Your task to perform on an android device: change the clock style Image 0: 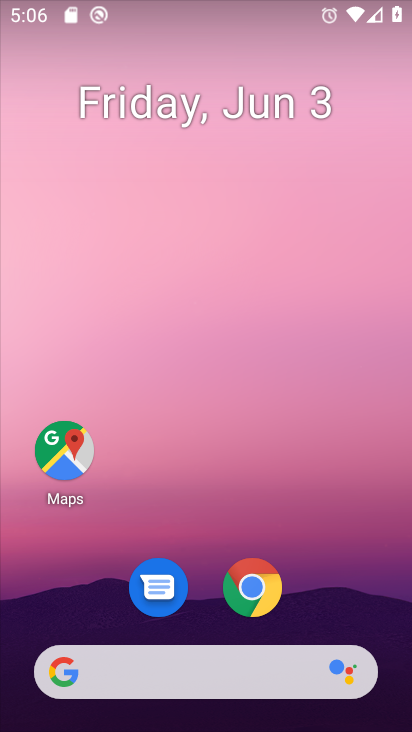
Step 0: drag from (157, 727) to (157, 25)
Your task to perform on an android device: change the clock style Image 1: 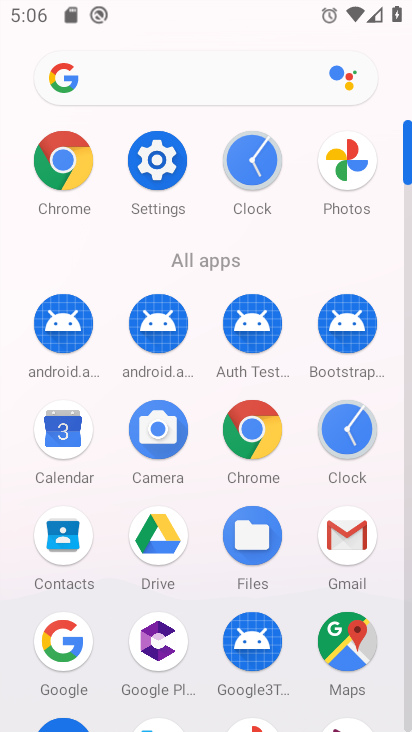
Step 1: click (332, 434)
Your task to perform on an android device: change the clock style Image 2: 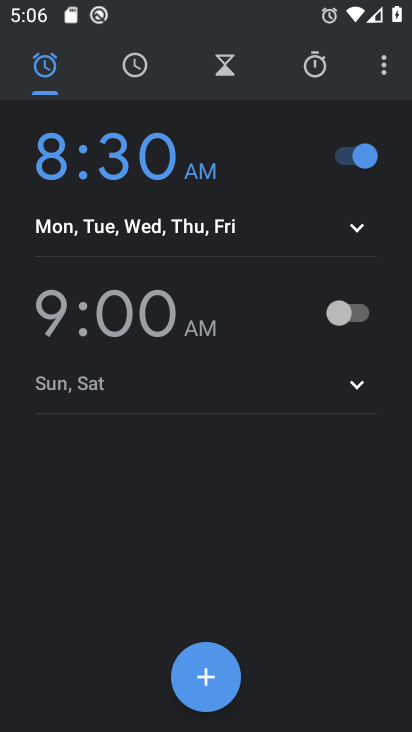
Step 2: click (383, 72)
Your task to perform on an android device: change the clock style Image 3: 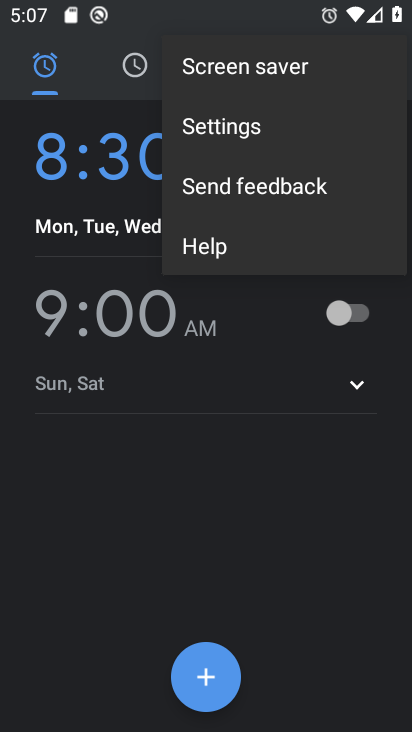
Step 3: click (249, 137)
Your task to perform on an android device: change the clock style Image 4: 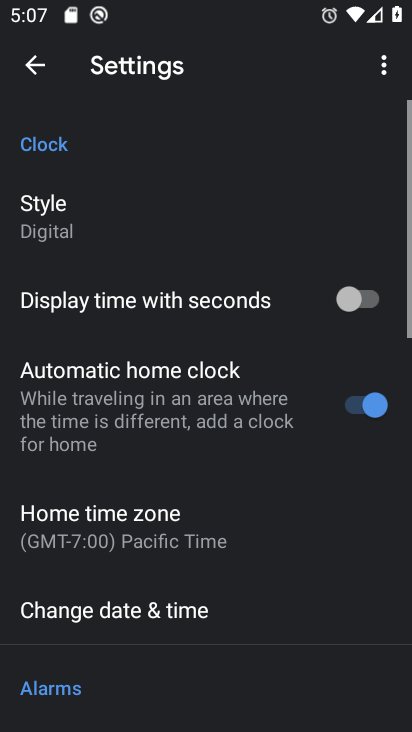
Step 4: click (71, 204)
Your task to perform on an android device: change the clock style Image 5: 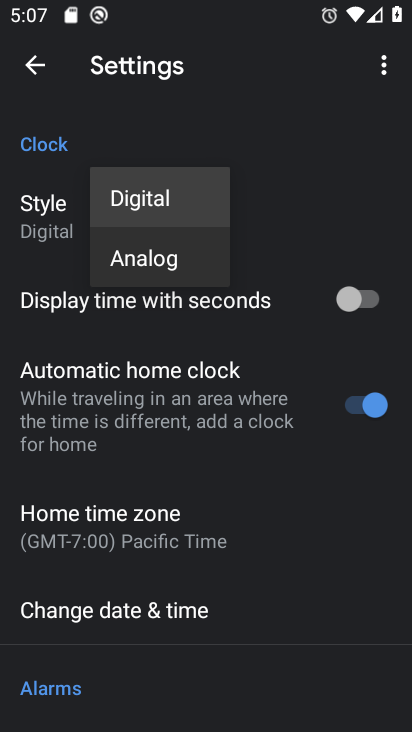
Step 5: click (145, 263)
Your task to perform on an android device: change the clock style Image 6: 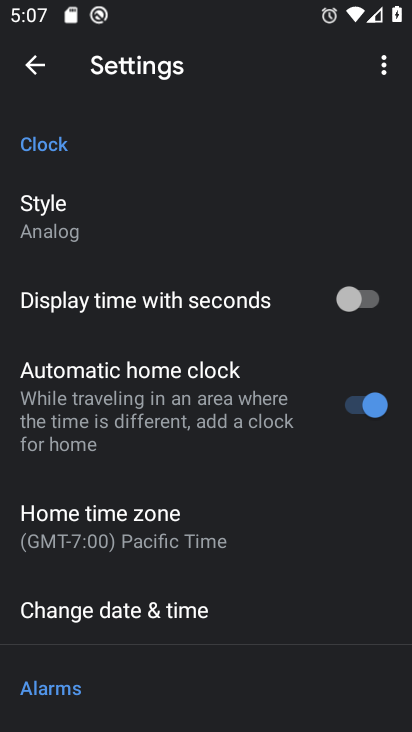
Step 6: task complete